Your task to perform on an android device: manage bookmarks in the chrome app Image 0: 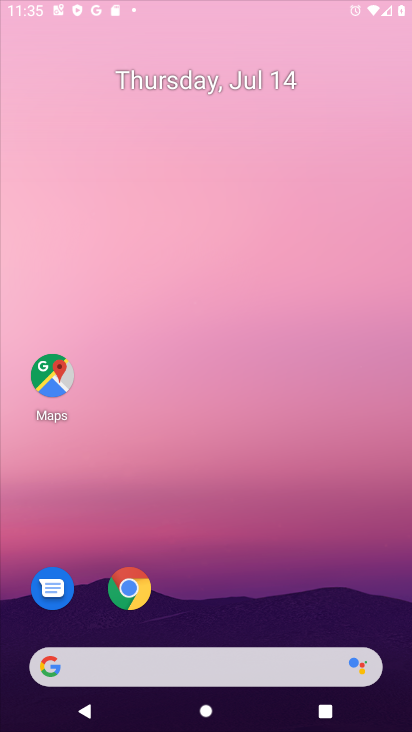
Step 0: press home button
Your task to perform on an android device: manage bookmarks in the chrome app Image 1: 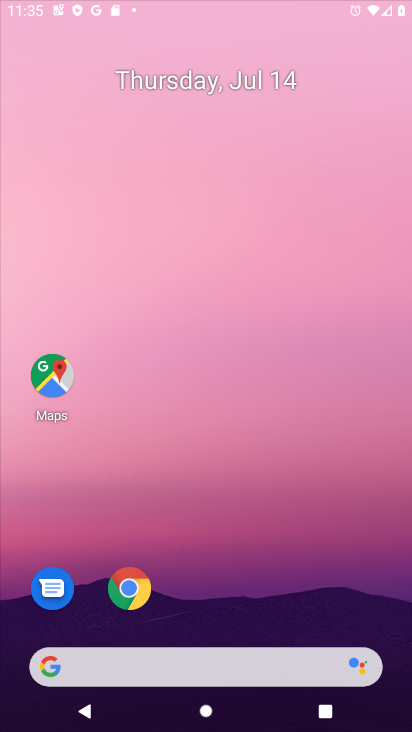
Step 1: click (240, 1)
Your task to perform on an android device: manage bookmarks in the chrome app Image 2: 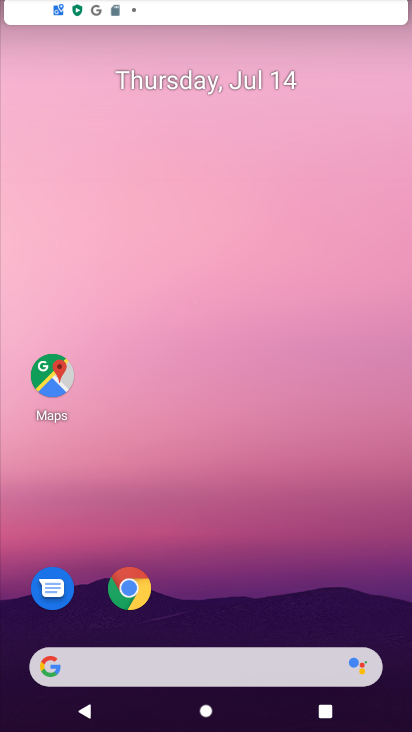
Step 2: drag from (342, 613) to (317, 29)
Your task to perform on an android device: manage bookmarks in the chrome app Image 3: 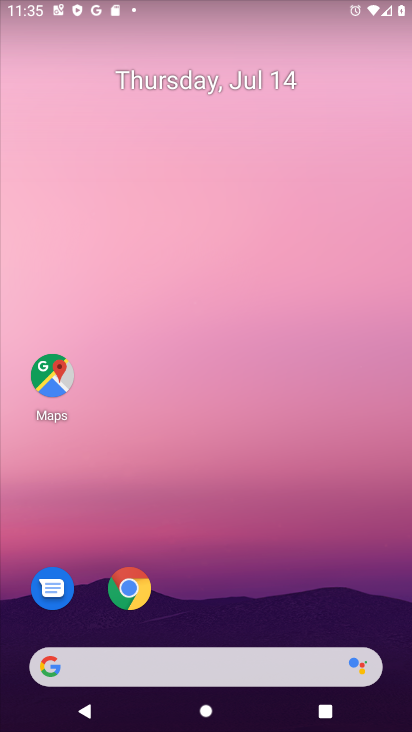
Step 3: drag from (316, 586) to (265, 96)
Your task to perform on an android device: manage bookmarks in the chrome app Image 4: 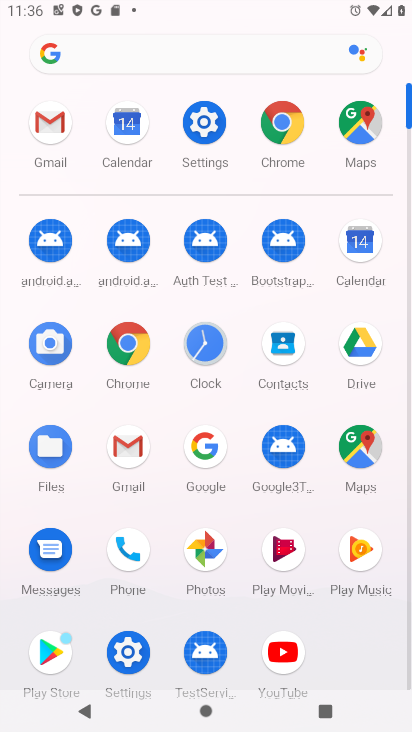
Step 4: click (127, 334)
Your task to perform on an android device: manage bookmarks in the chrome app Image 5: 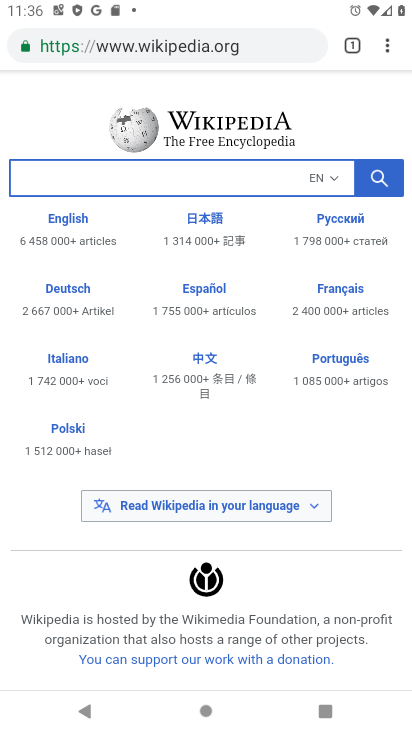
Step 5: task complete